Your task to perform on an android device: What is the recent news? Image 0: 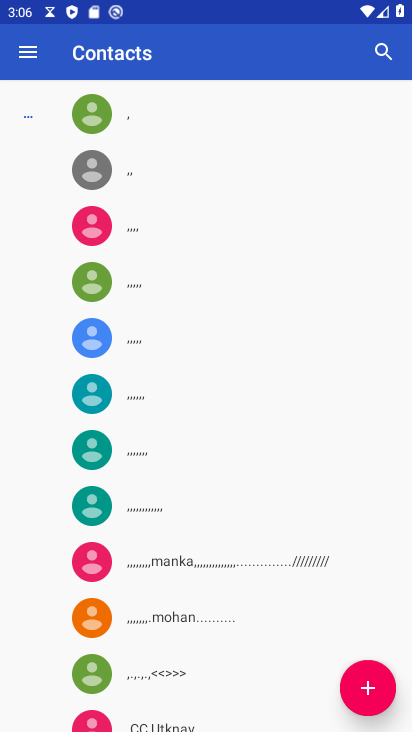
Step 0: press home button
Your task to perform on an android device: What is the recent news? Image 1: 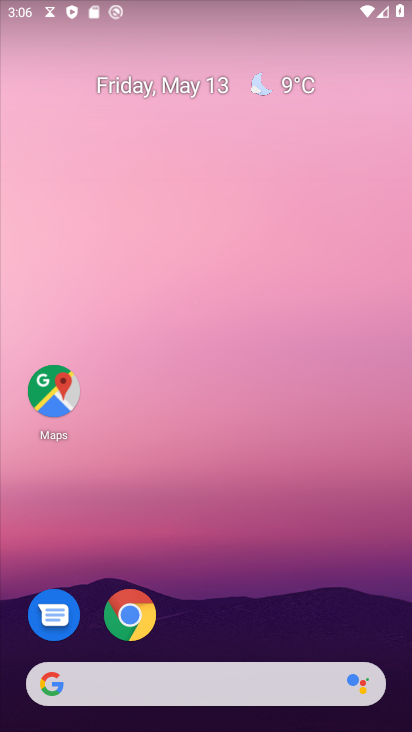
Step 1: task complete